Your task to perform on an android device: empty trash in the gmail app Image 0: 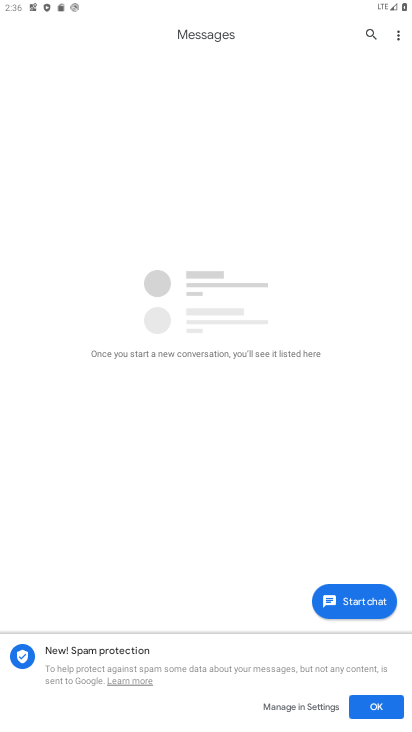
Step 0: press home button
Your task to perform on an android device: empty trash in the gmail app Image 1: 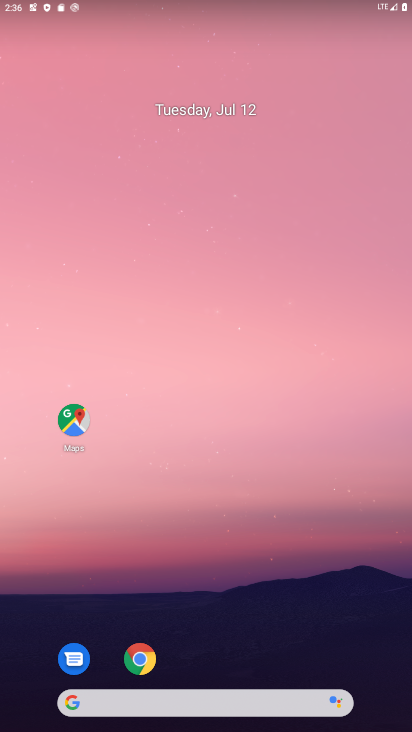
Step 1: drag from (203, 730) to (206, 109)
Your task to perform on an android device: empty trash in the gmail app Image 2: 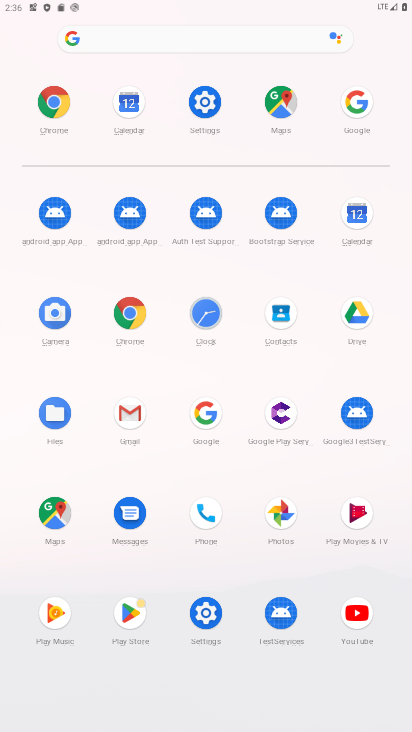
Step 2: click (128, 412)
Your task to perform on an android device: empty trash in the gmail app Image 3: 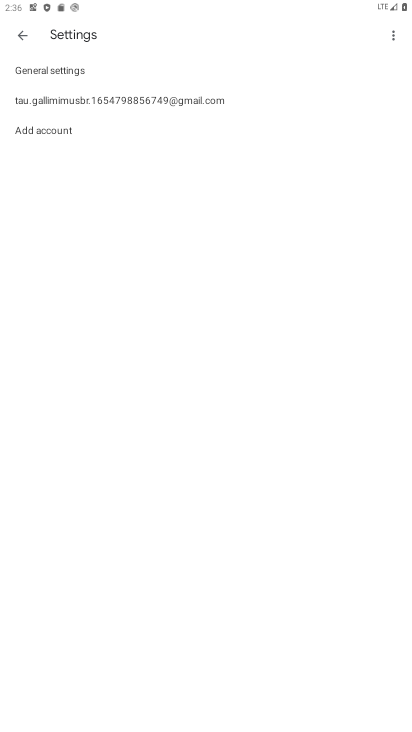
Step 3: click (21, 32)
Your task to perform on an android device: empty trash in the gmail app Image 4: 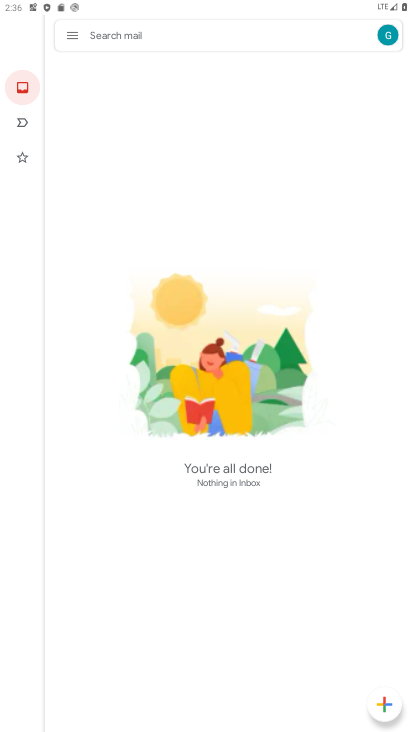
Step 4: click (68, 31)
Your task to perform on an android device: empty trash in the gmail app Image 5: 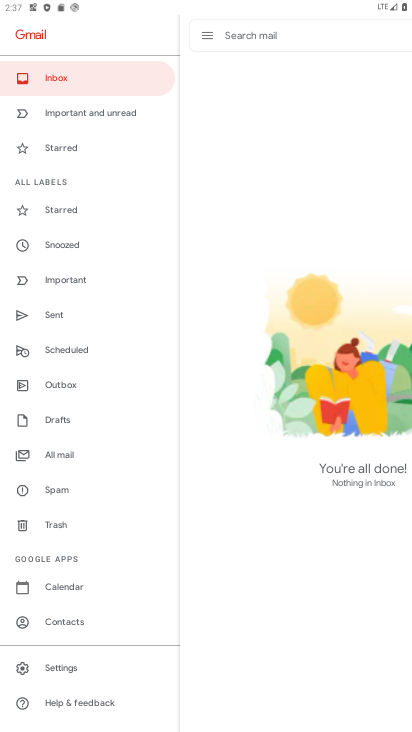
Step 5: click (65, 525)
Your task to perform on an android device: empty trash in the gmail app Image 6: 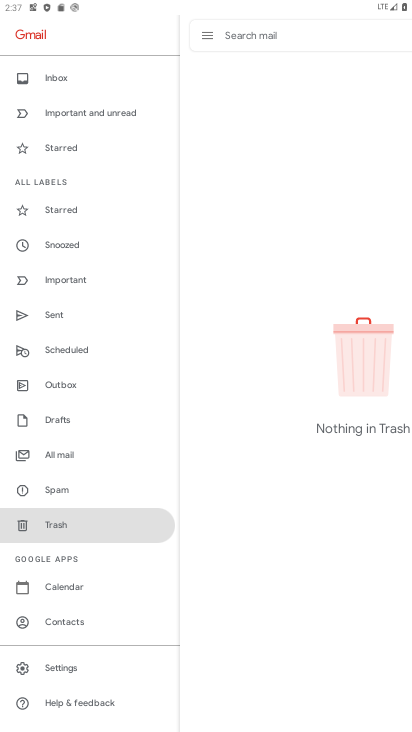
Step 6: task complete